Your task to perform on an android device: check storage Image 0: 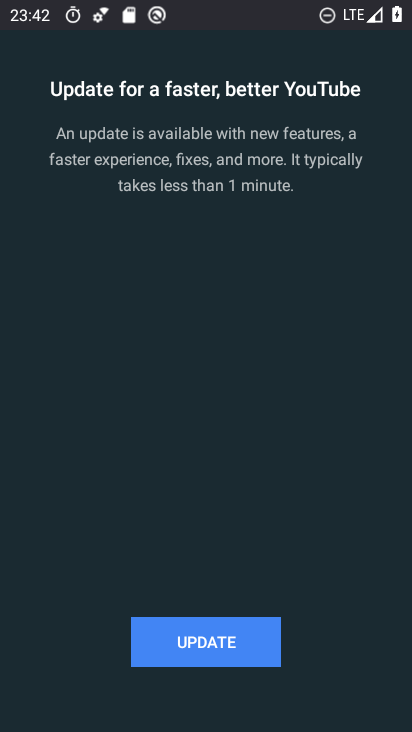
Step 0: press home button
Your task to perform on an android device: check storage Image 1: 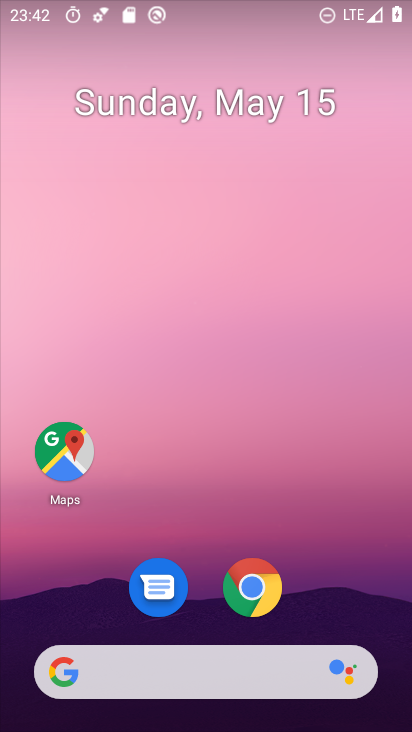
Step 1: drag from (216, 589) to (218, 176)
Your task to perform on an android device: check storage Image 2: 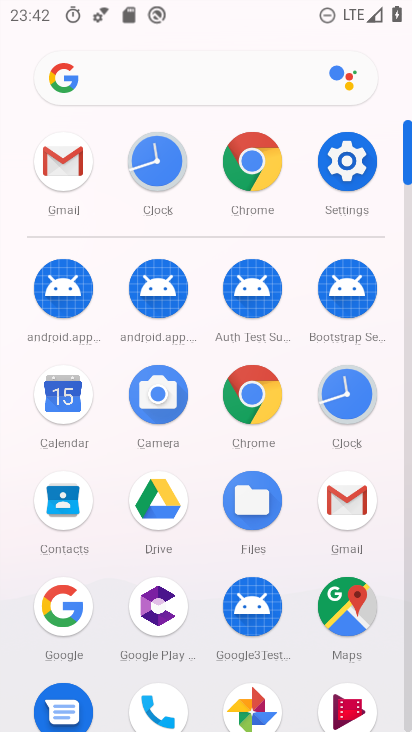
Step 2: click (349, 157)
Your task to perform on an android device: check storage Image 3: 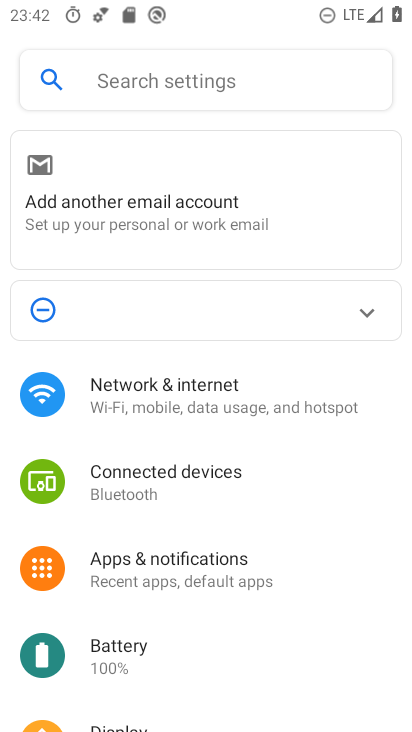
Step 3: drag from (167, 682) to (218, 416)
Your task to perform on an android device: check storage Image 4: 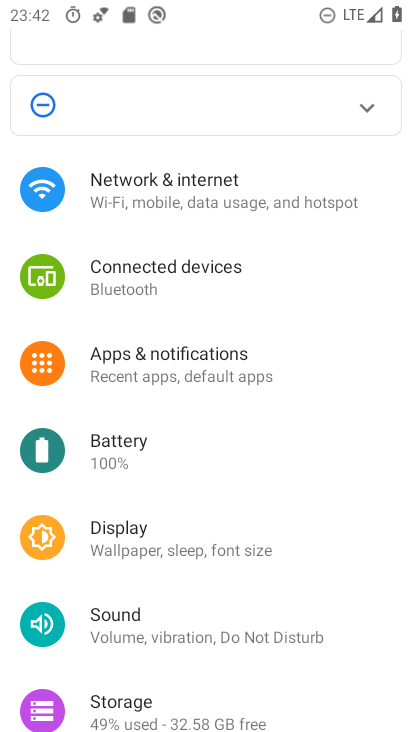
Step 4: click (135, 707)
Your task to perform on an android device: check storage Image 5: 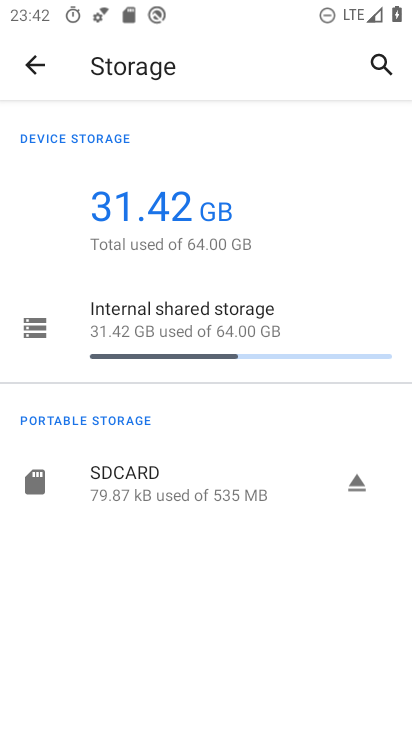
Step 5: task complete